Your task to perform on an android device: Add usb-b to the cart on newegg Image 0: 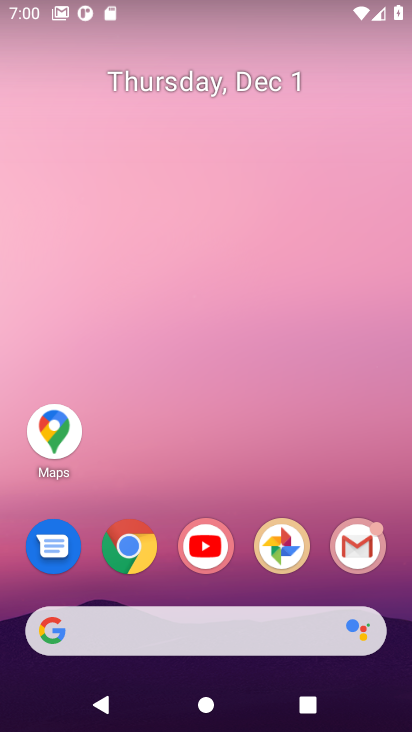
Step 0: click (127, 551)
Your task to perform on an android device: Add usb-b to the cart on newegg Image 1: 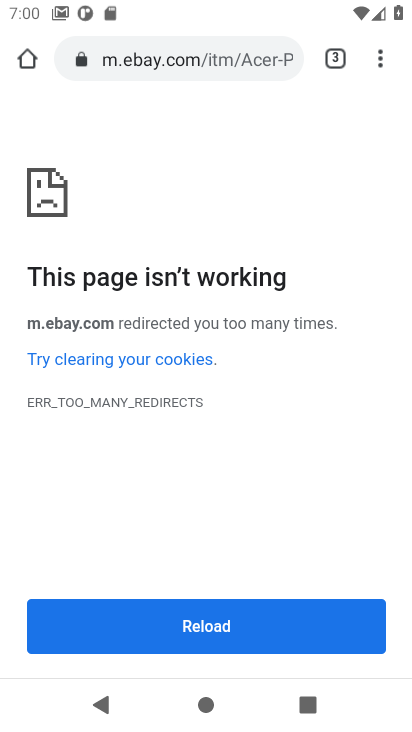
Step 1: click (167, 56)
Your task to perform on an android device: Add usb-b to the cart on newegg Image 2: 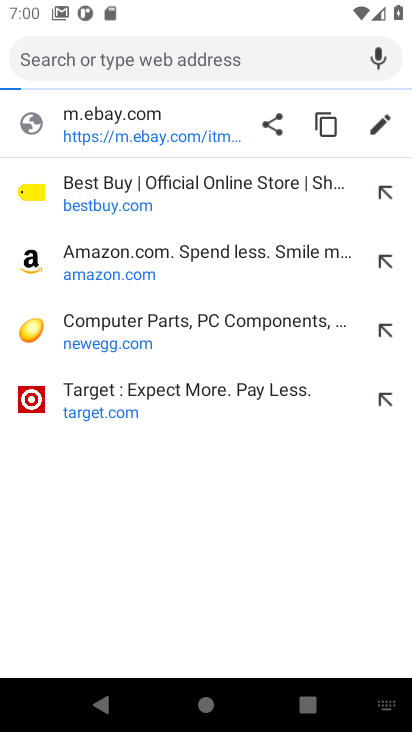
Step 2: click (90, 318)
Your task to perform on an android device: Add usb-b to the cart on newegg Image 3: 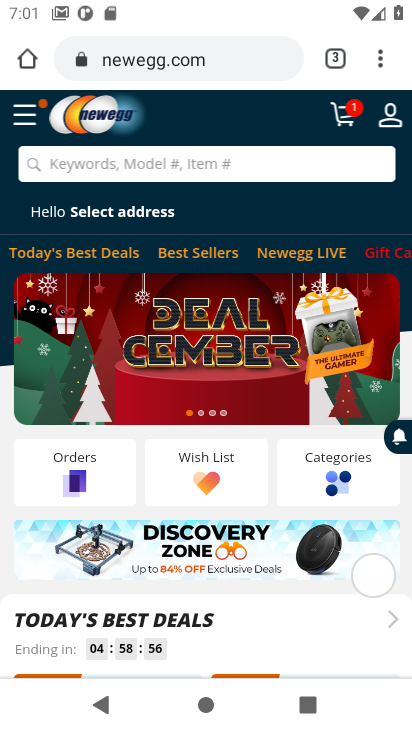
Step 3: click (98, 165)
Your task to perform on an android device: Add usb-b to the cart on newegg Image 4: 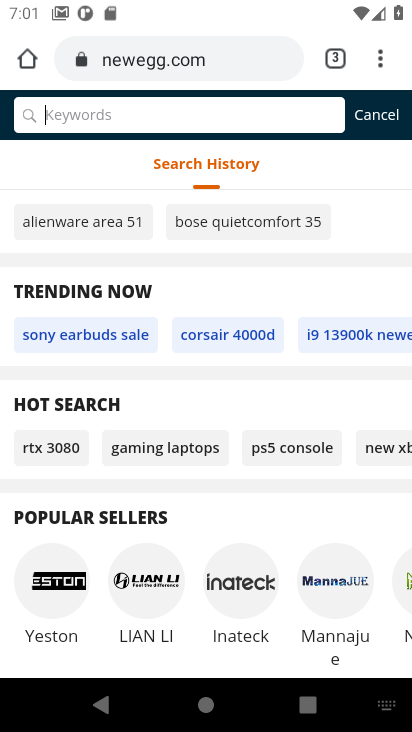
Step 4: type "usb-b"
Your task to perform on an android device: Add usb-b to the cart on newegg Image 5: 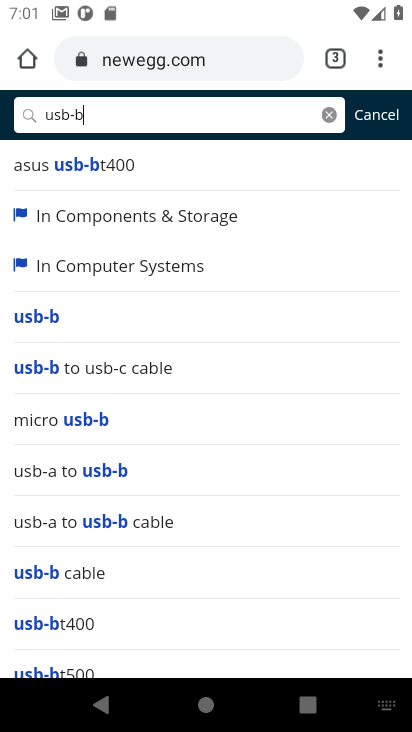
Step 5: click (31, 324)
Your task to perform on an android device: Add usb-b to the cart on newegg Image 6: 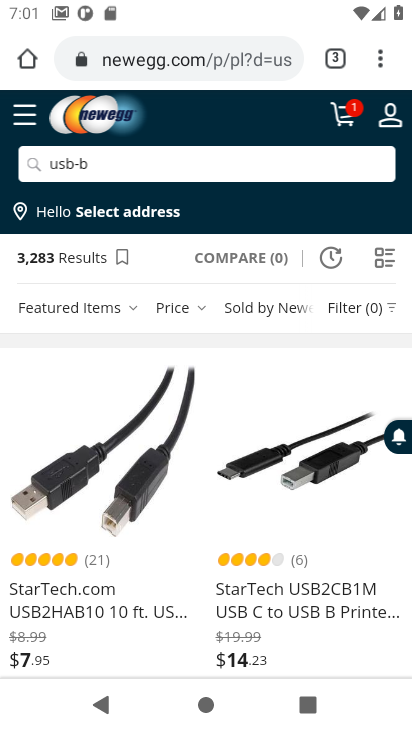
Step 6: drag from (80, 545) to (95, 369)
Your task to perform on an android device: Add usb-b to the cart on newegg Image 7: 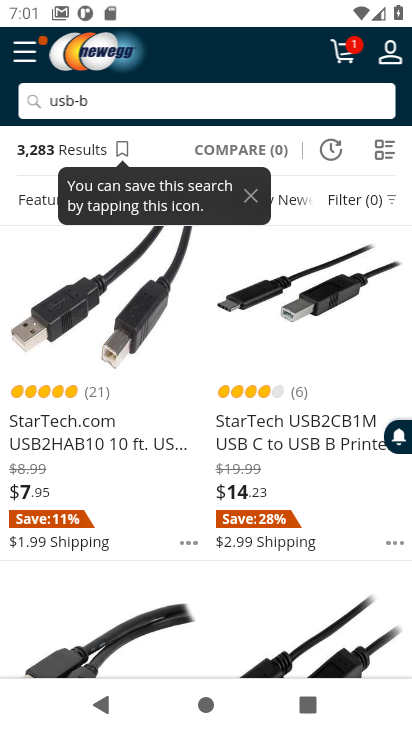
Step 7: drag from (234, 577) to (236, 398)
Your task to perform on an android device: Add usb-b to the cart on newegg Image 8: 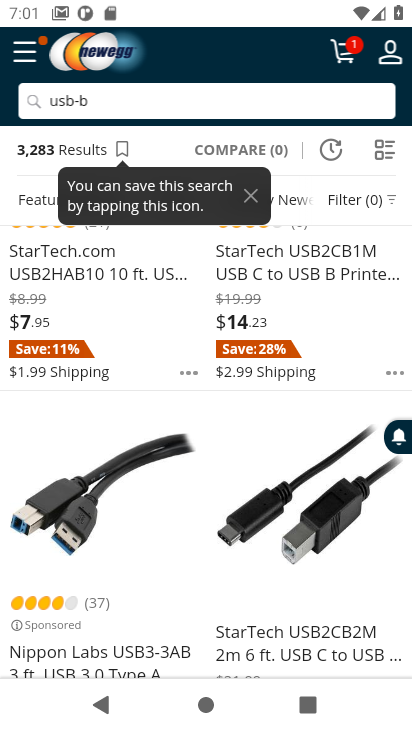
Step 8: drag from (180, 514) to (187, 432)
Your task to perform on an android device: Add usb-b to the cart on newegg Image 9: 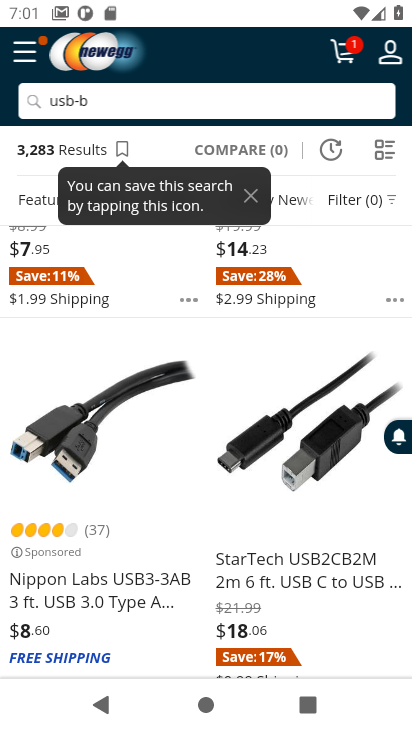
Step 9: drag from (265, 278) to (263, 480)
Your task to perform on an android device: Add usb-b to the cart on newegg Image 10: 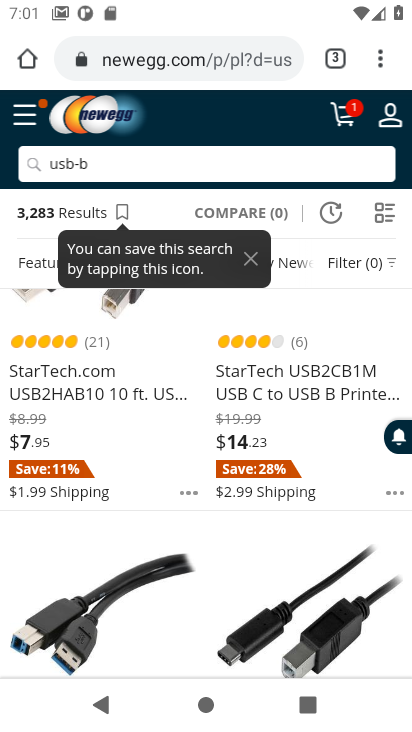
Step 10: click (302, 386)
Your task to perform on an android device: Add usb-b to the cart on newegg Image 11: 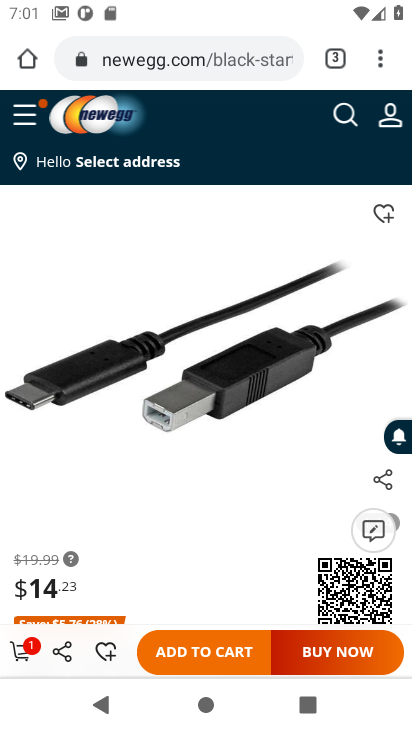
Step 11: click (202, 646)
Your task to perform on an android device: Add usb-b to the cart on newegg Image 12: 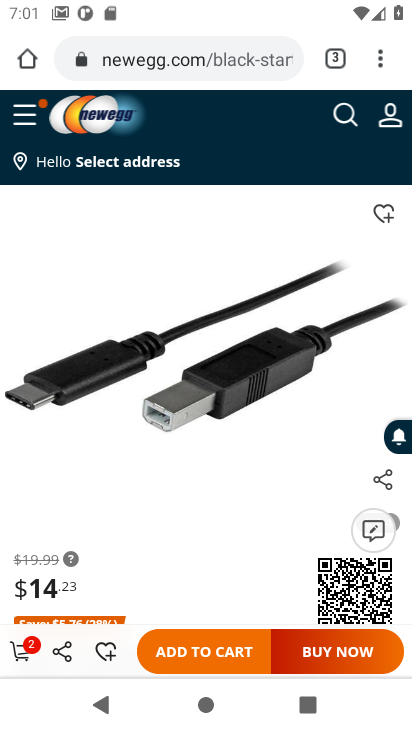
Step 12: task complete